Your task to perform on an android device: toggle improve location accuracy Image 0: 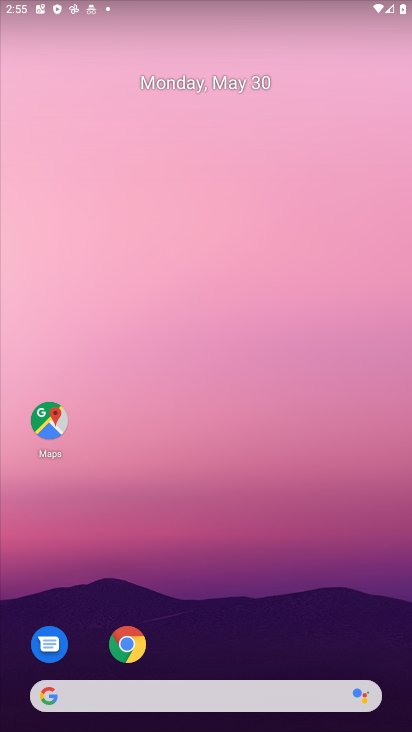
Step 0: drag from (297, 634) to (260, 88)
Your task to perform on an android device: toggle improve location accuracy Image 1: 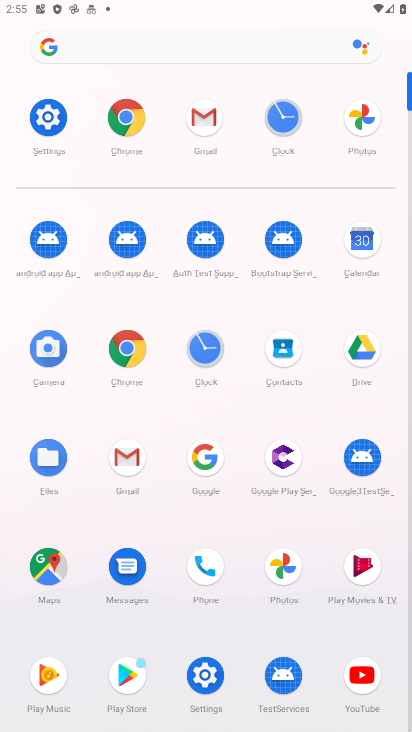
Step 1: click (60, 107)
Your task to perform on an android device: toggle improve location accuracy Image 2: 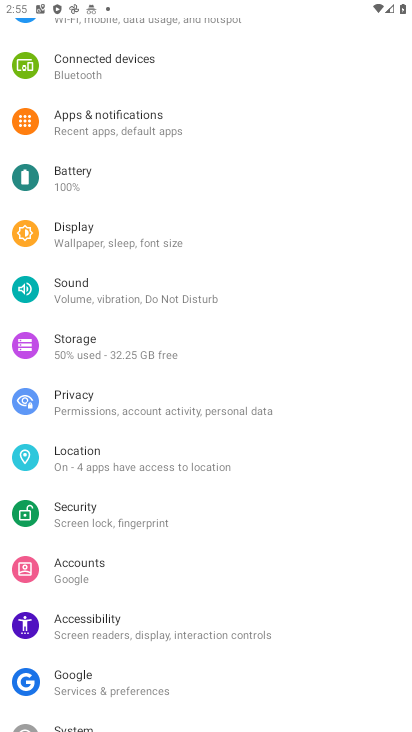
Step 2: drag from (151, 196) to (224, 655)
Your task to perform on an android device: toggle improve location accuracy Image 3: 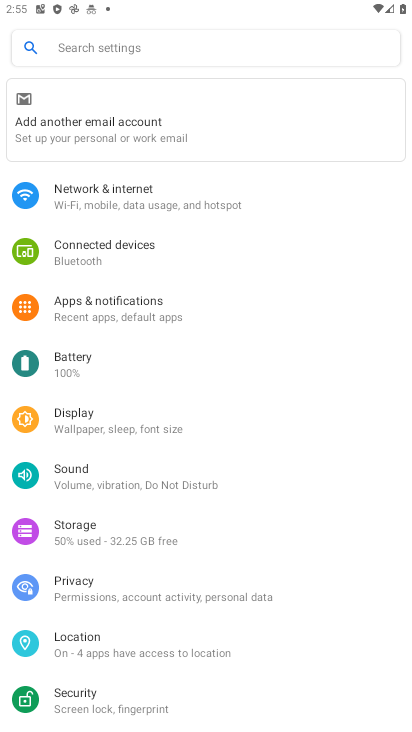
Step 3: click (209, 660)
Your task to perform on an android device: toggle improve location accuracy Image 4: 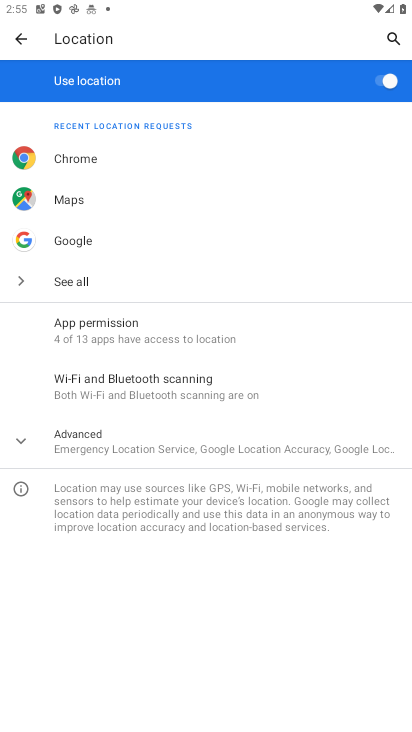
Step 4: click (132, 430)
Your task to perform on an android device: toggle improve location accuracy Image 5: 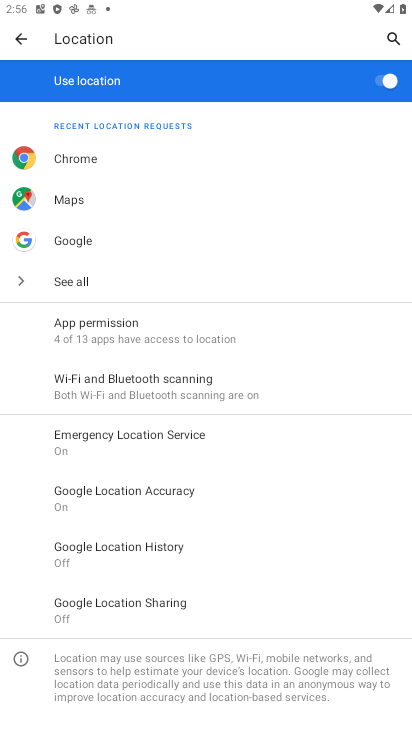
Step 5: click (197, 506)
Your task to perform on an android device: toggle improve location accuracy Image 6: 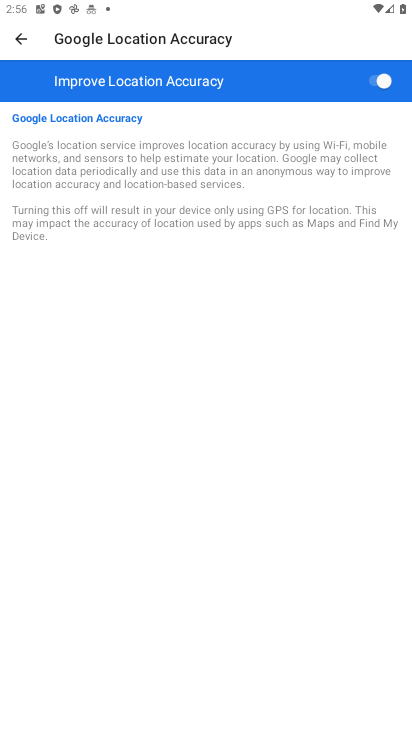
Step 6: task complete